Your task to perform on an android device: turn on priority inbox in the gmail app Image 0: 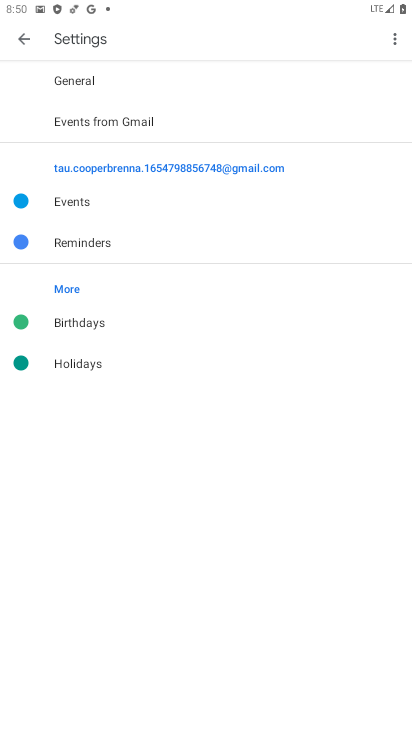
Step 0: press home button
Your task to perform on an android device: turn on priority inbox in the gmail app Image 1: 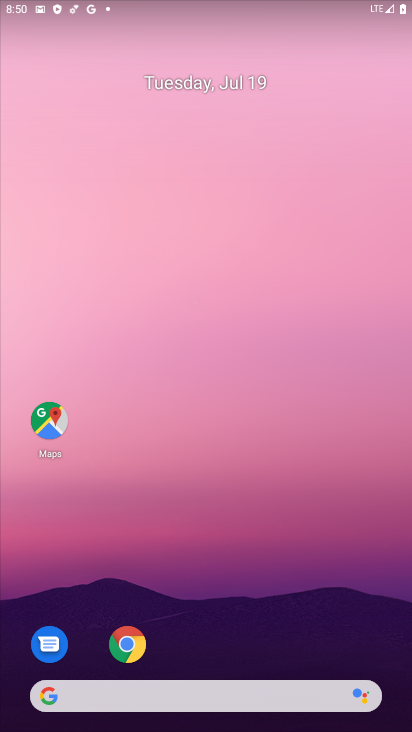
Step 1: drag from (270, 663) to (290, 409)
Your task to perform on an android device: turn on priority inbox in the gmail app Image 2: 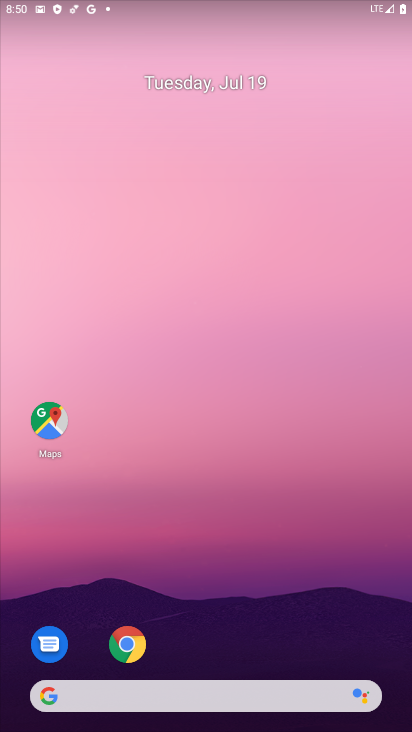
Step 2: drag from (302, 599) to (283, 462)
Your task to perform on an android device: turn on priority inbox in the gmail app Image 3: 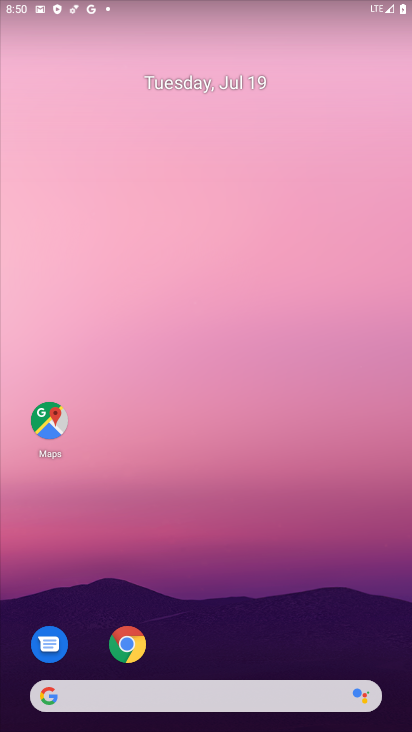
Step 3: drag from (283, 462) to (329, 19)
Your task to perform on an android device: turn on priority inbox in the gmail app Image 4: 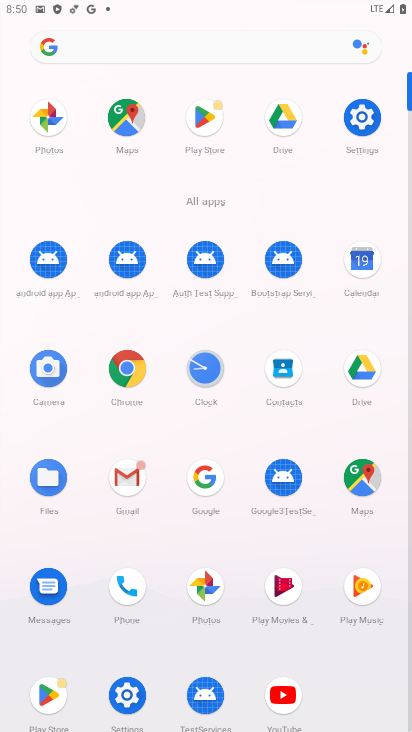
Step 4: click (123, 476)
Your task to perform on an android device: turn on priority inbox in the gmail app Image 5: 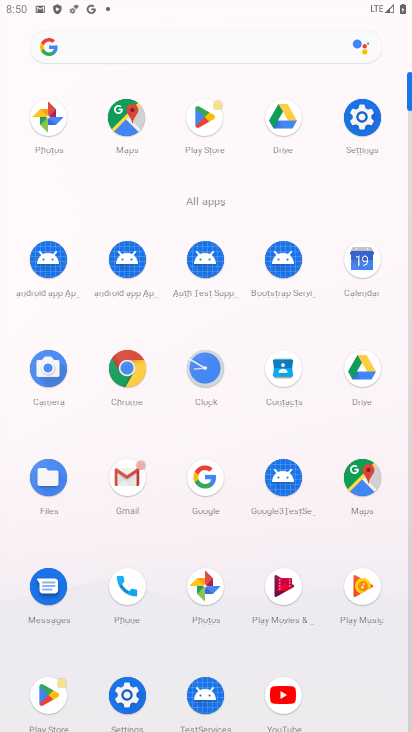
Step 5: click (123, 476)
Your task to perform on an android device: turn on priority inbox in the gmail app Image 6: 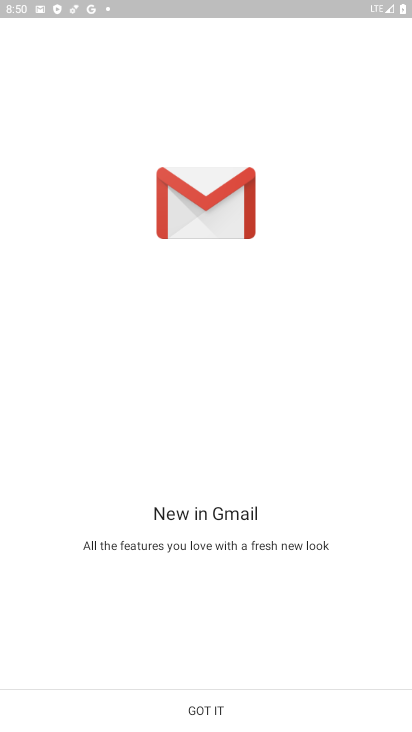
Step 6: click (250, 714)
Your task to perform on an android device: turn on priority inbox in the gmail app Image 7: 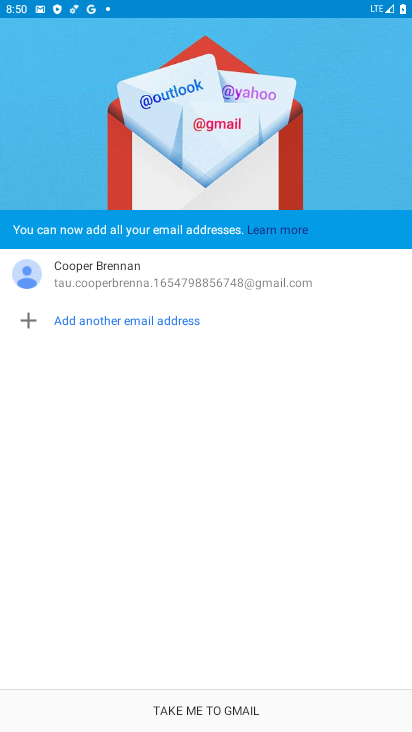
Step 7: click (207, 723)
Your task to perform on an android device: turn on priority inbox in the gmail app Image 8: 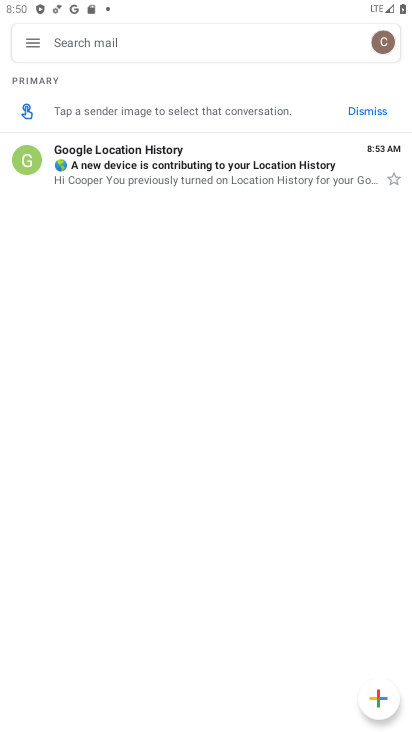
Step 8: click (41, 35)
Your task to perform on an android device: turn on priority inbox in the gmail app Image 9: 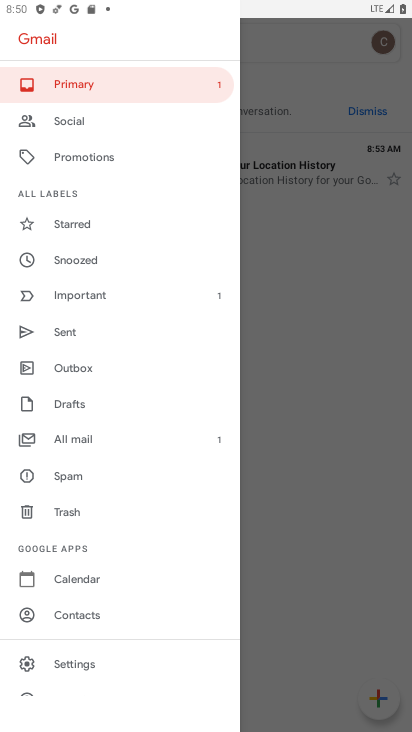
Step 9: click (100, 654)
Your task to perform on an android device: turn on priority inbox in the gmail app Image 10: 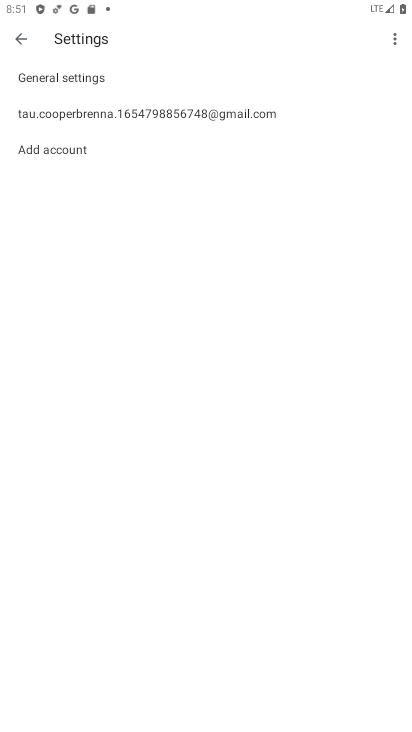
Step 10: click (205, 103)
Your task to perform on an android device: turn on priority inbox in the gmail app Image 11: 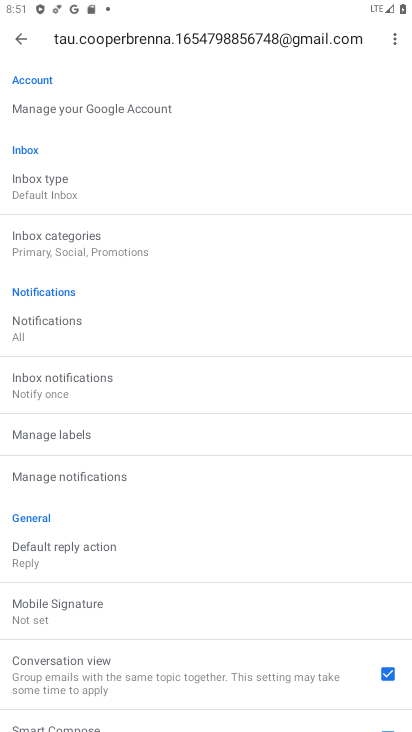
Step 11: click (78, 181)
Your task to perform on an android device: turn on priority inbox in the gmail app Image 12: 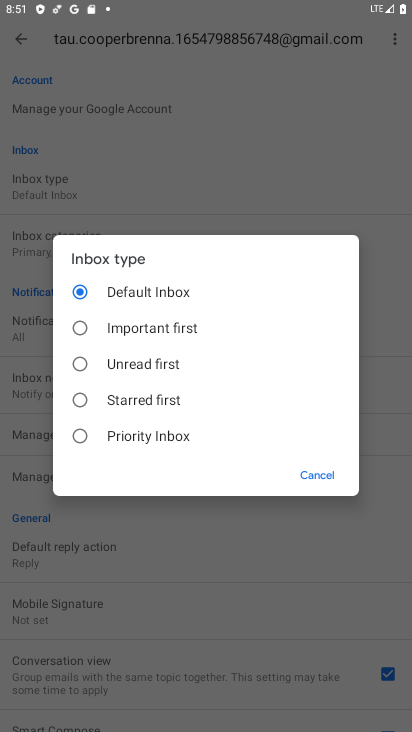
Step 12: click (76, 442)
Your task to perform on an android device: turn on priority inbox in the gmail app Image 13: 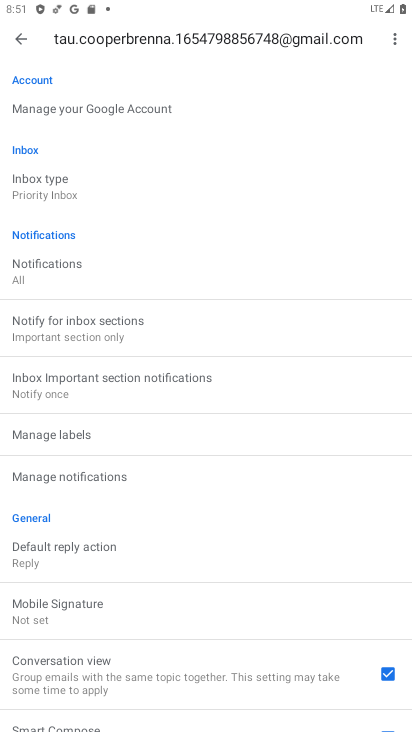
Step 13: task complete